Your task to perform on an android device: Open Wikipedia Image 0: 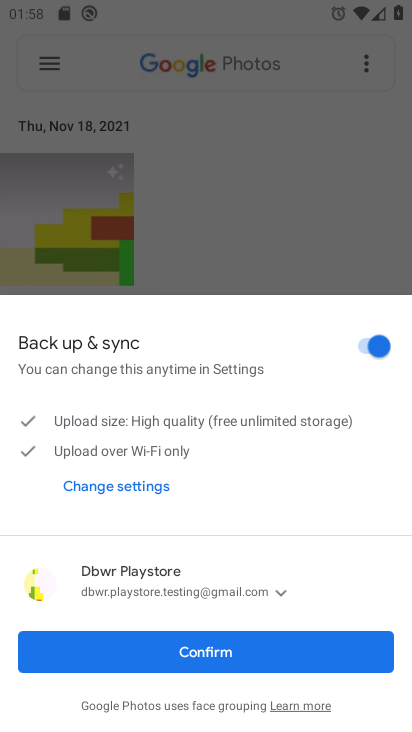
Step 0: press home button
Your task to perform on an android device: Open Wikipedia Image 1: 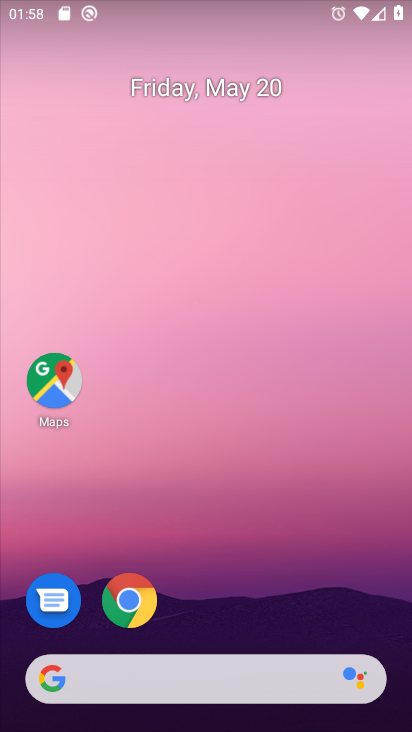
Step 1: click (120, 603)
Your task to perform on an android device: Open Wikipedia Image 2: 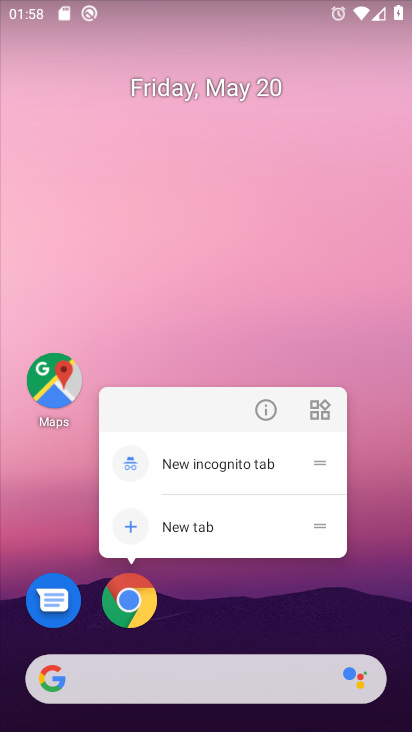
Step 2: click (124, 600)
Your task to perform on an android device: Open Wikipedia Image 3: 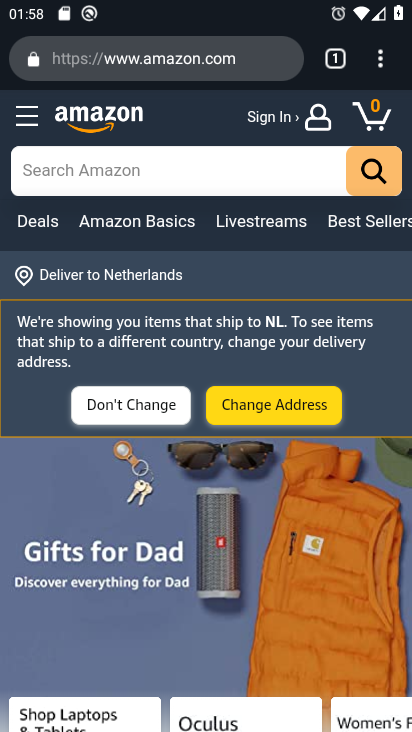
Step 3: click (187, 53)
Your task to perform on an android device: Open Wikipedia Image 4: 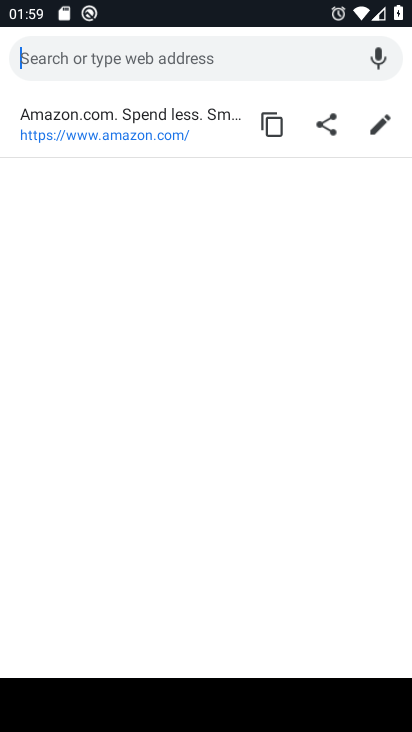
Step 4: type "wikipedia"
Your task to perform on an android device: Open Wikipedia Image 5: 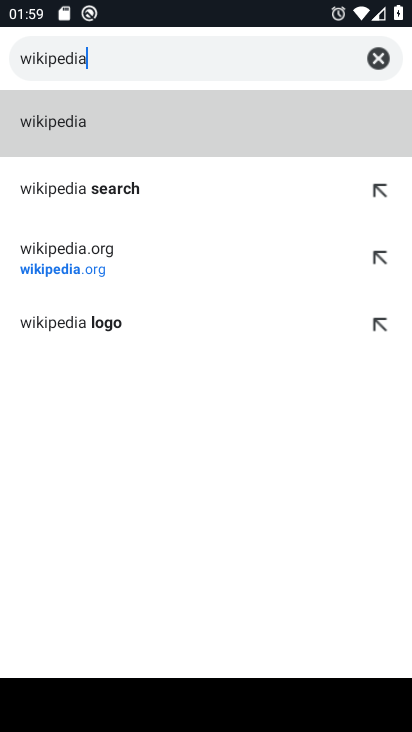
Step 5: click (57, 134)
Your task to perform on an android device: Open Wikipedia Image 6: 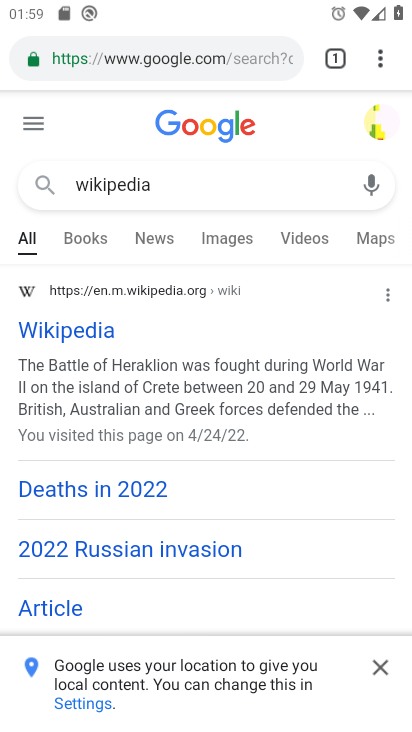
Step 6: task complete